Your task to perform on an android device: What is the news today? Image 0: 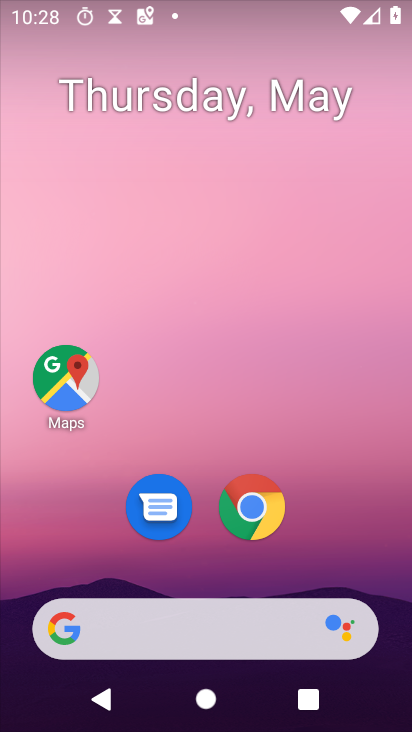
Step 0: click (145, 648)
Your task to perform on an android device: What is the news today? Image 1: 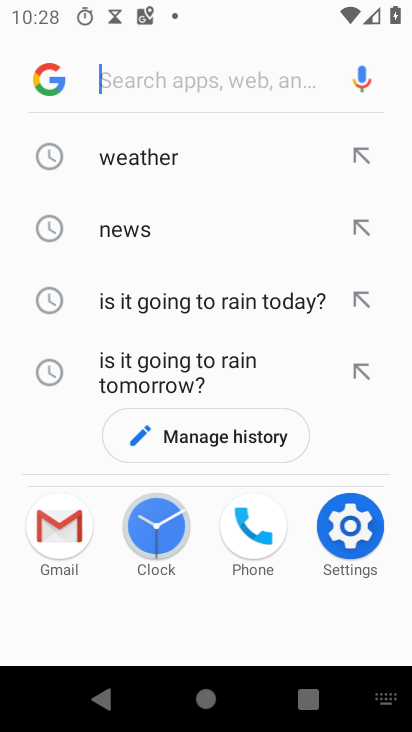
Step 1: type "news today"
Your task to perform on an android device: What is the news today? Image 2: 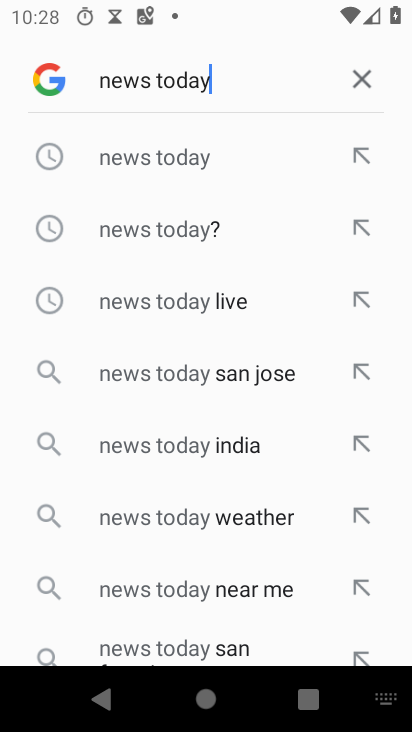
Step 2: click (120, 167)
Your task to perform on an android device: What is the news today? Image 3: 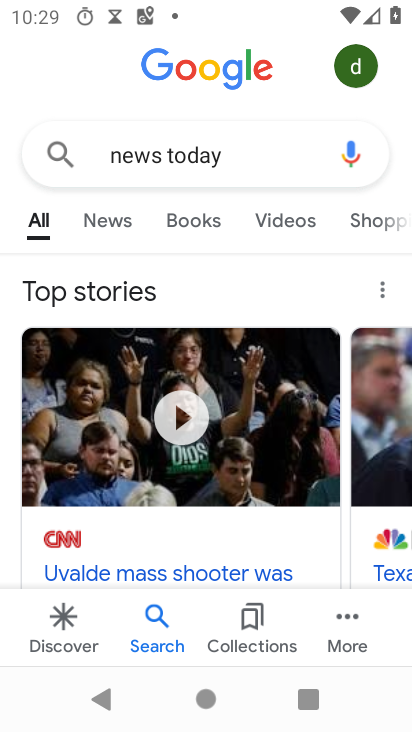
Step 3: task complete